Your task to perform on an android device: find snoozed emails in the gmail app Image 0: 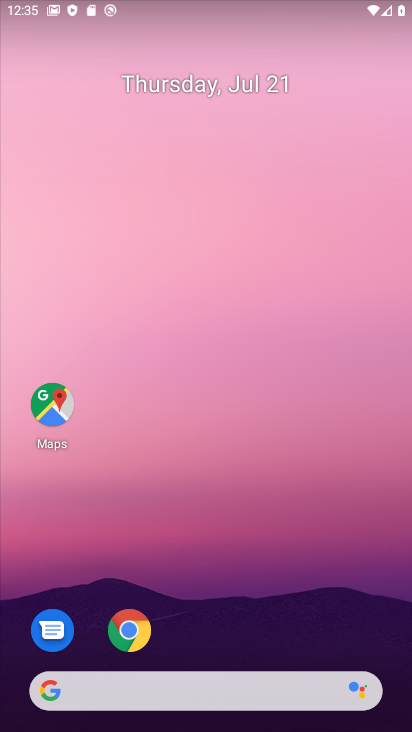
Step 0: drag from (389, 626) to (291, 232)
Your task to perform on an android device: find snoozed emails in the gmail app Image 1: 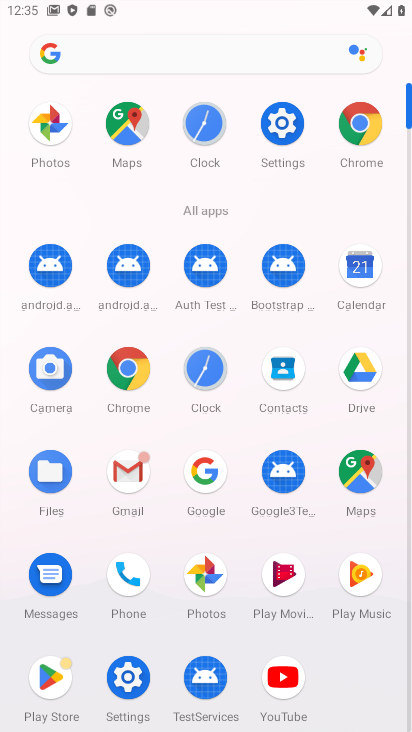
Step 1: click (131, 473)
Your task to perform on an android device: find snoozed emails in the gmail app Image 2: 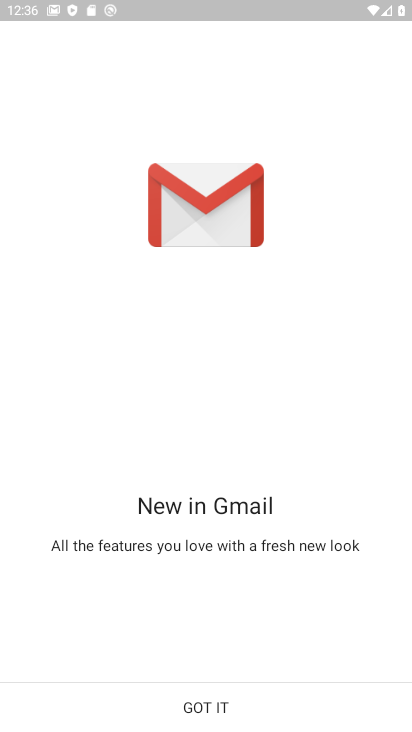
Step 2: click (220, 708)
Your task to perform on an android device: find snoozed emails in the gmail app Image 3: 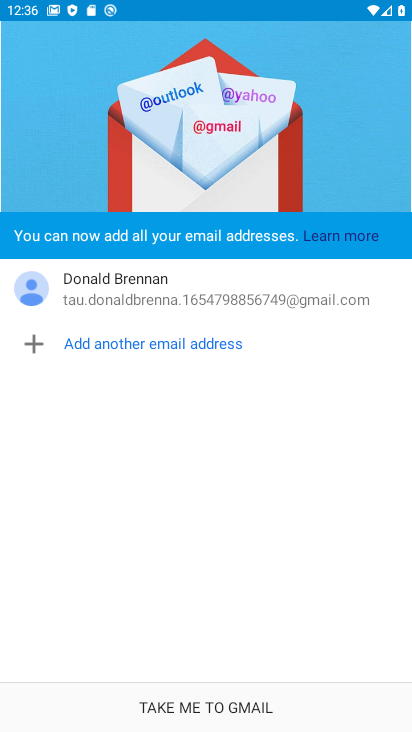
Step 3: click (207, 708)
Your task to perform on an android device: find snoozed emails in the gmail app Image 4: 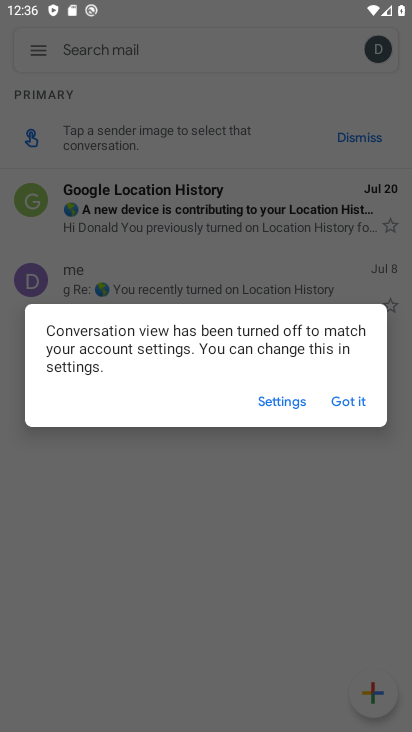
Step 4: click (363, 409)
Your task to perform on an android device: find snoozed emails in the gmail app Image 5: 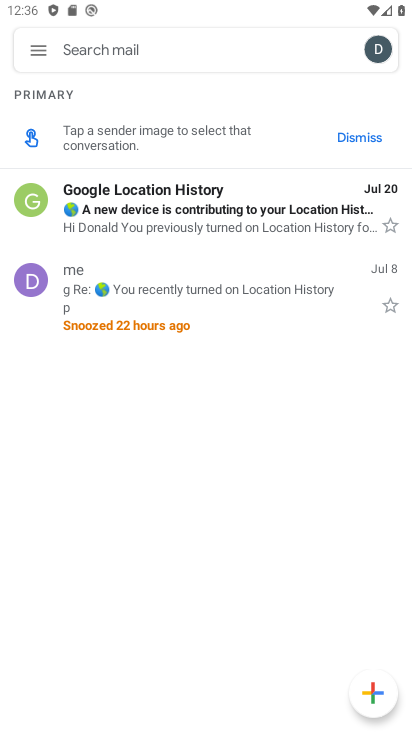
Step 5: click (41, 52)
Your task to perform on an android device: find snoozed emails in the gmail app Image 6: 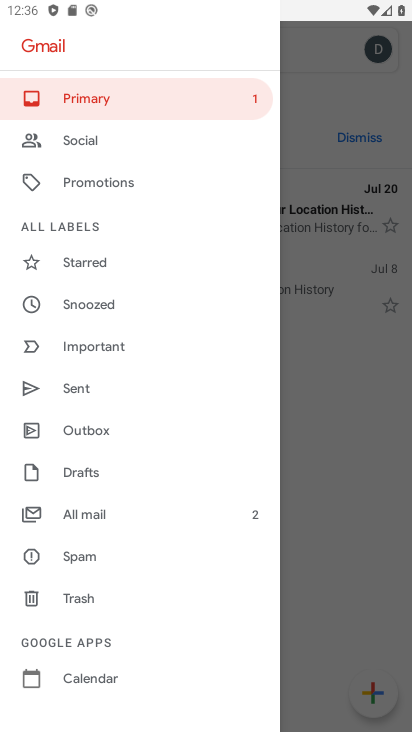
Step 6: click (119, 300)
Your task to perform on an android device: find snoozed emails in the gmail app Image 7: 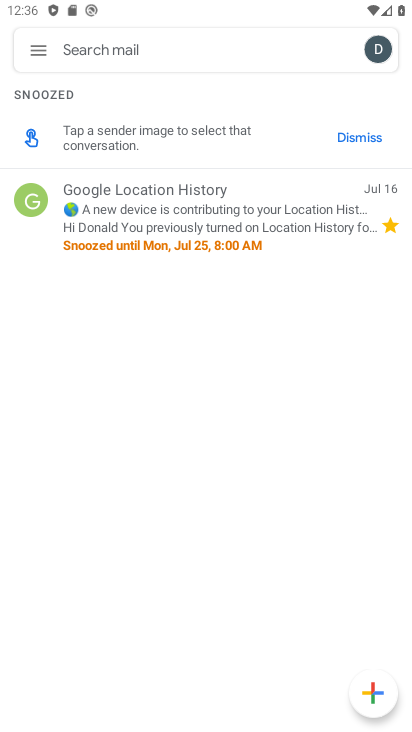
Step 7: task complete